Your task to perform on an android device: Open privacy settings Image 0: 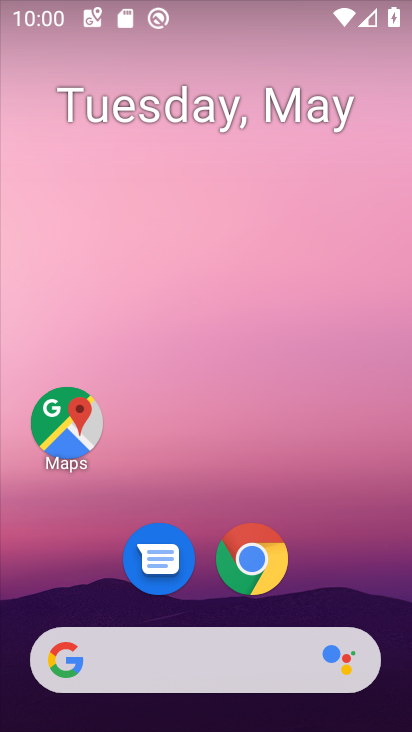
Step 0: drag from (392, 646) to (330, 145)
Your task to perform on an android device: Open privacy settings Image 1: 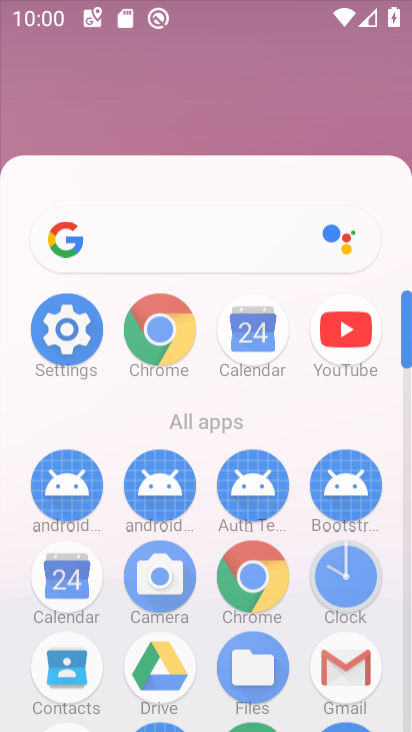
Step 1: click (288, 47)
Your task to perform on an android device: Open privacy settings Image 2: 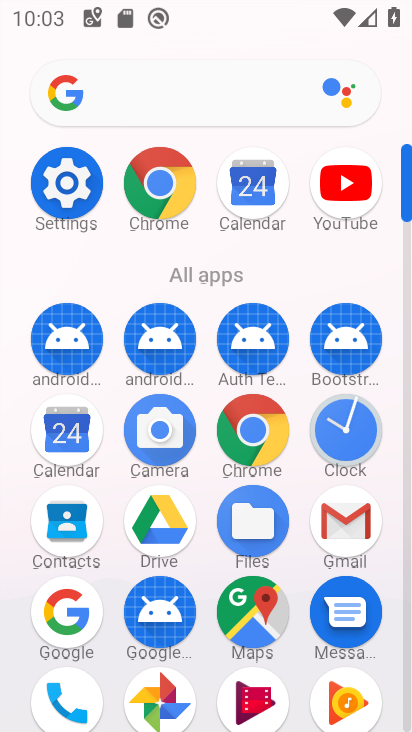
Step 2: click (62, 190)
Your task to perform on an android device: Open privacy settings Image 3: 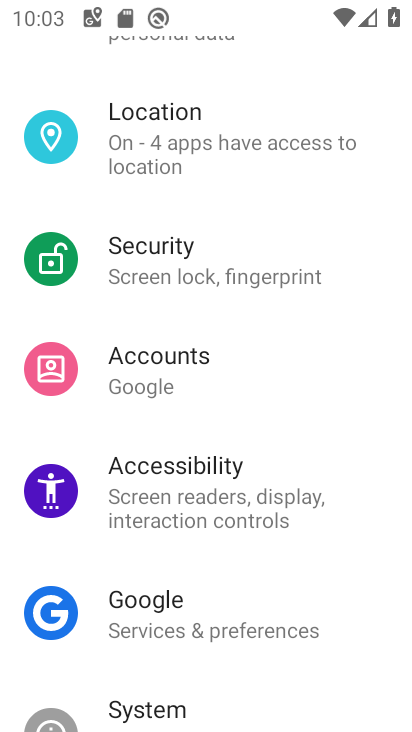
Step 3: drag from (168, 654) to (203, 195)
Your task to perform on an android device: Open privacy settings Image 4: 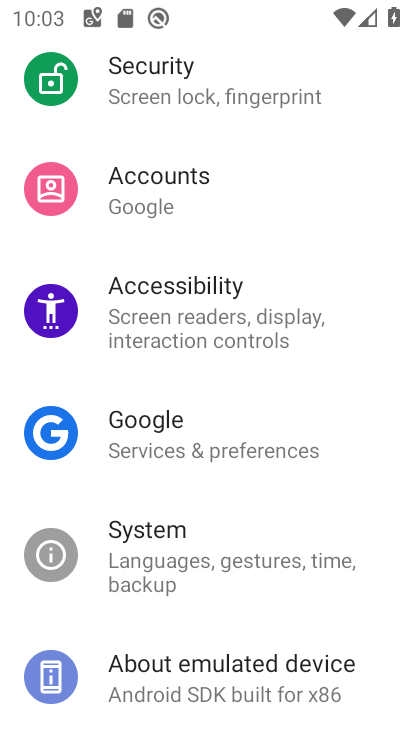
Step 4: drag from (221, 127) to (194, 697)
Your task to perform on an android device: Open privacy settings Image 5: 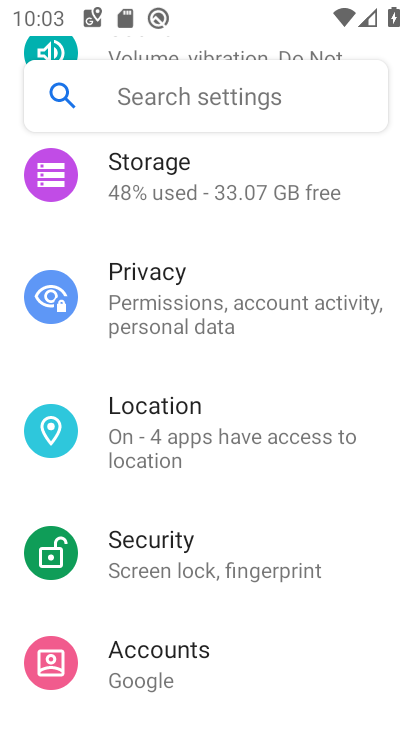
Step 5: click (194, 300)
Your task to perform on an android device: Open privacy settings Image 6: 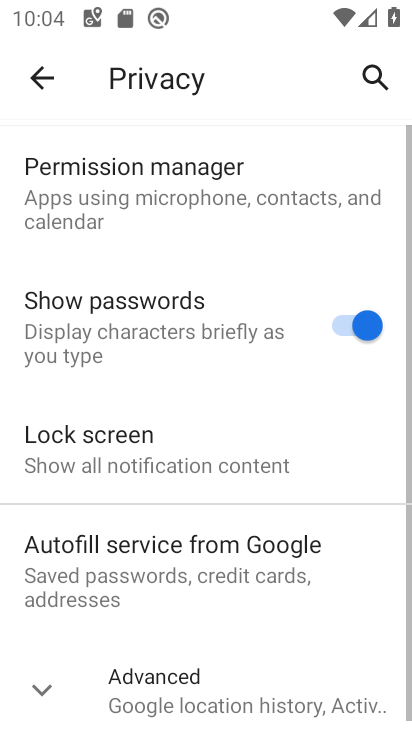
Step 6: task complete